Your task to perform on an android device: change the clock display to digital Image 0: 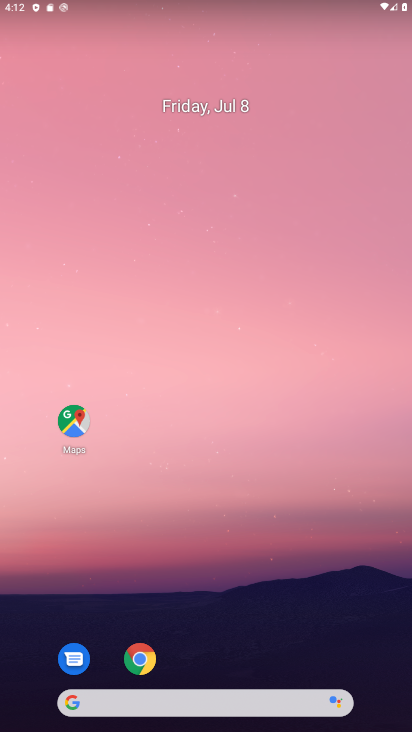
Step 0: drag from (328, 618) to (321, 87)
Your task to perform on an android device: change the clock display to digital Image 1: 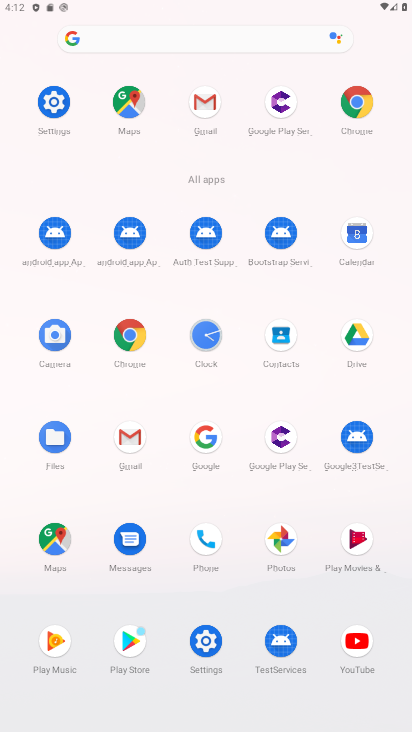
Step 1: click (193, 333)
Your task to perform on an android device: change the clock display to digital Image 2: 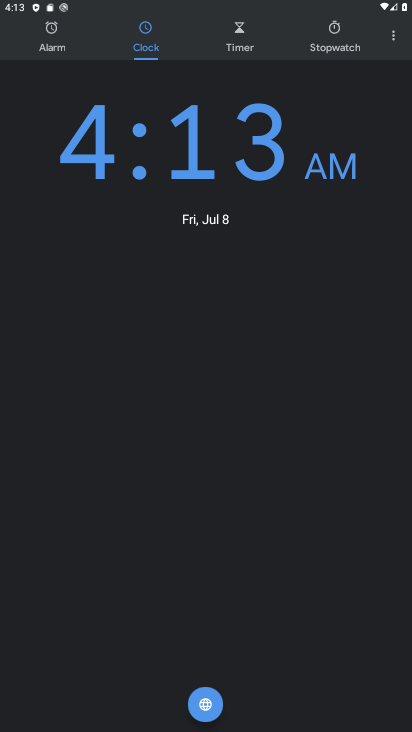
Step 2: click (398, 34)
Your task to perform on an android device: change the clock display to digital Image 3: 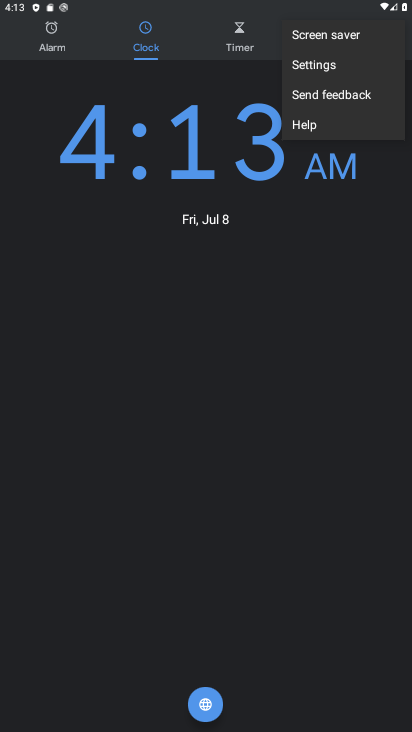
Step 3: click (310, 69)
Your task to perform on an android device: change the clock display to digital Image 4: 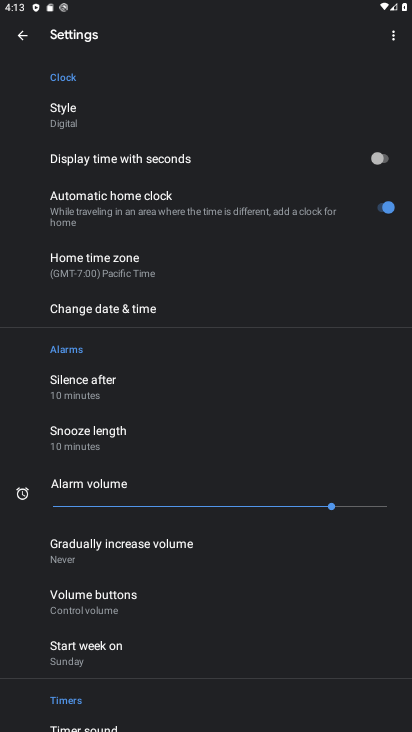
Step 4: click (52, 102)
Your task to perform on an android device: change the clock display to digital Image 5: 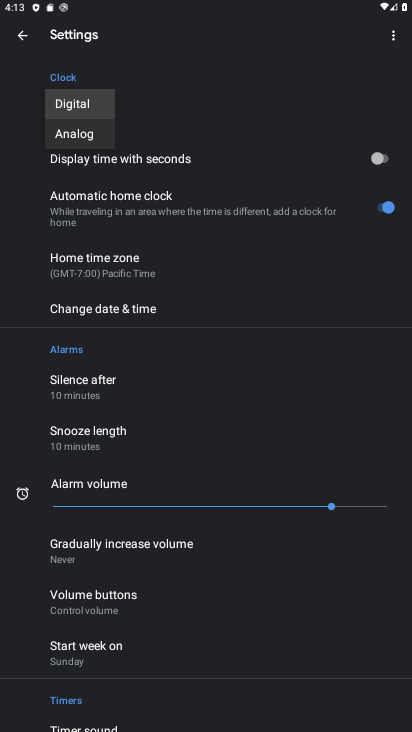
Step 5: click (103, 135)
Your task to perform on an android device: change the clock display to digital Image 6: 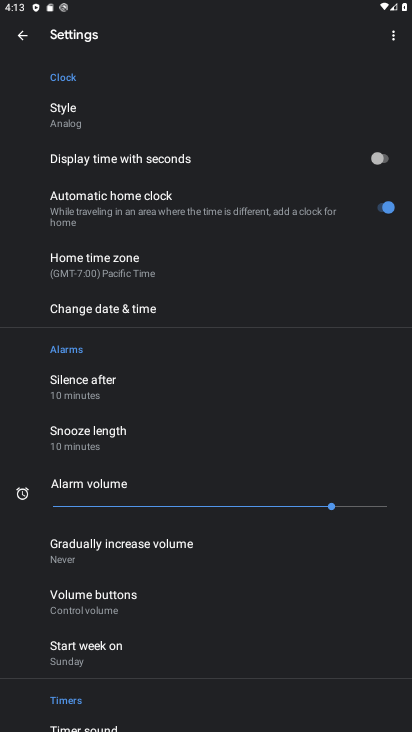
Step 6: task complete